Your task to perform on an android device: Go to wifi settings Image 0: 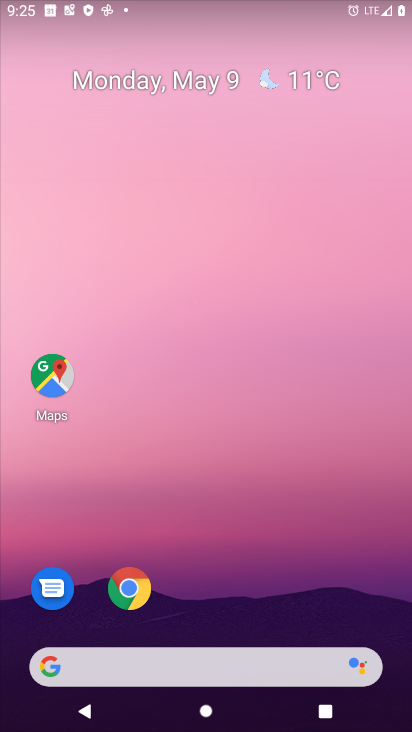
Step 0: drag from (296, 590) to (260, 55)
Your task to perform on an android device: Go to wifi settings Image 1: 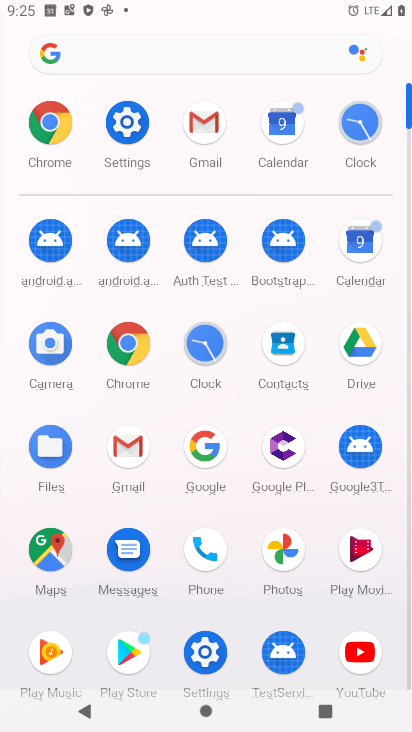
Step 1: click (209, 646)
Your task to perform on an android device: Go to wifi settings Image 2: 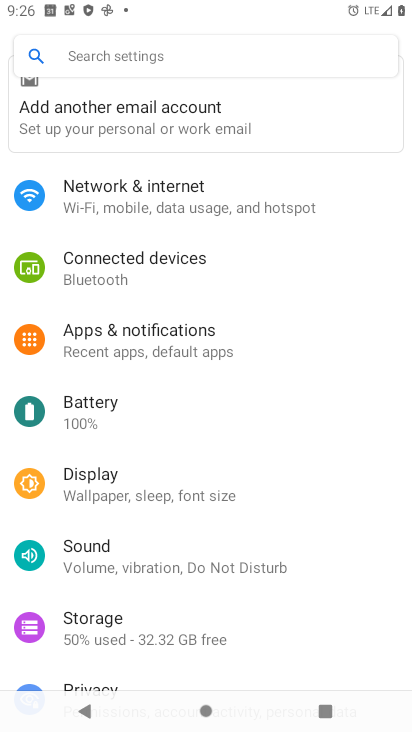
Step 2: drag from (185, 176) to (168, 458)
Your task to perform on an android device: Go to wifi settings Image 3: 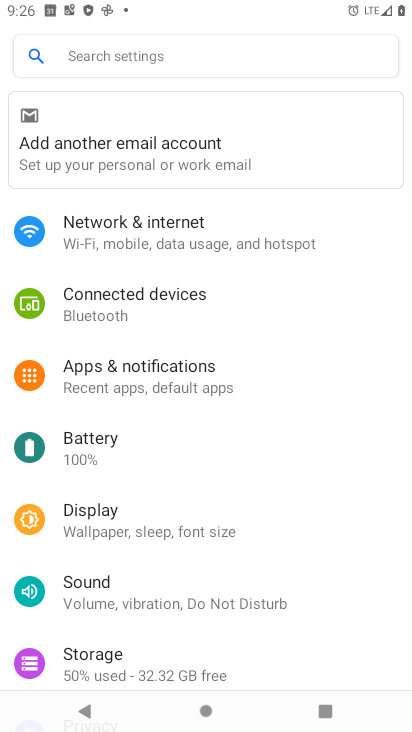
Step 3: click (192, 256)
Your task to perform on an android device: Go to wifi settings Image 4: 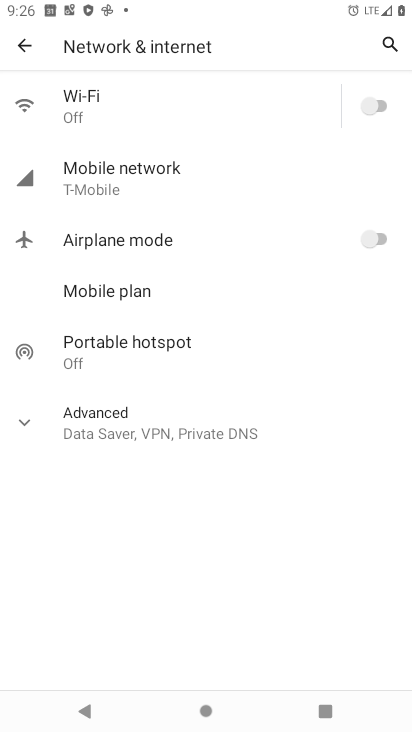
Step 4: click (124, 89)
Your task to perform on an android device: Go to wifi settings Image 5: 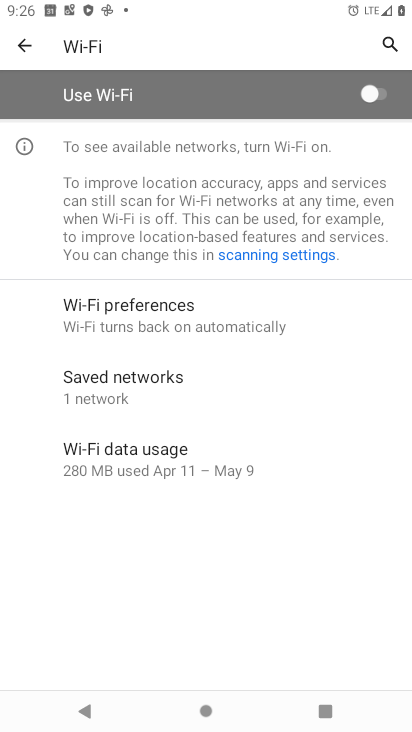
Step 5: task complete